Your task to perform on an android device: open wifi settings Image 0: 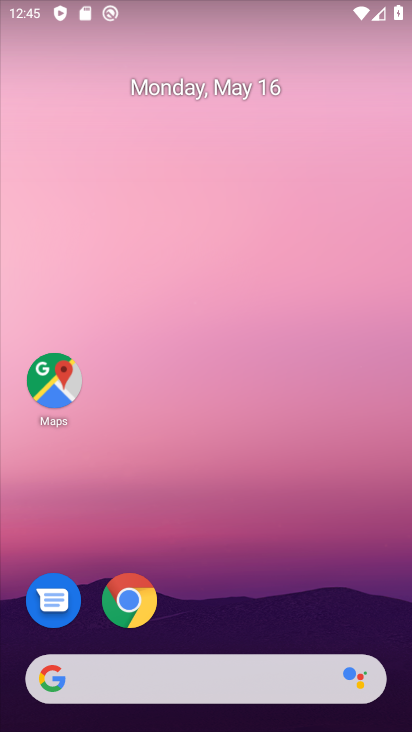
Step 0: drag from (352, 565) to (330, 74)
Your task to perform on an android device: open wifi settings Image 1: 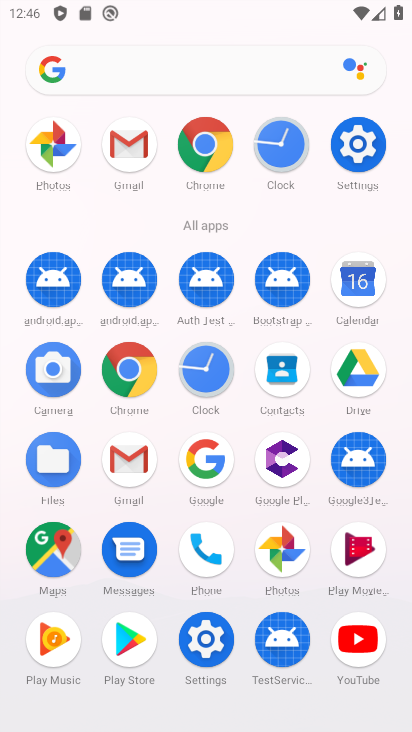
Step 1: click (356, 156)
Your task to perform on an android device: open wifi settings Image 2: 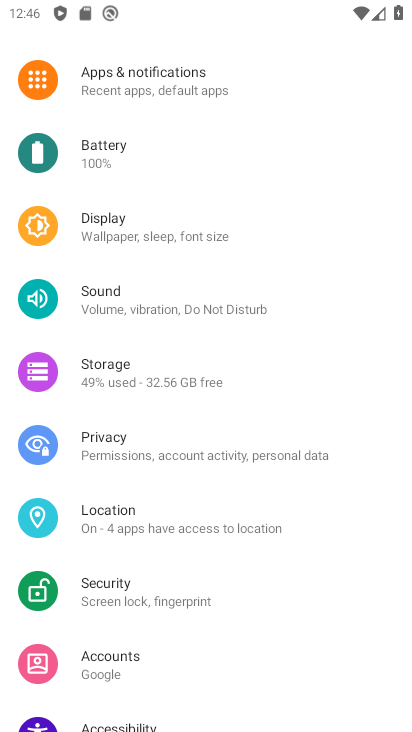
Step 2: drag from (330, 643) to (346, 444)
Your task to perform on an android device: open wifi settings Image 3: 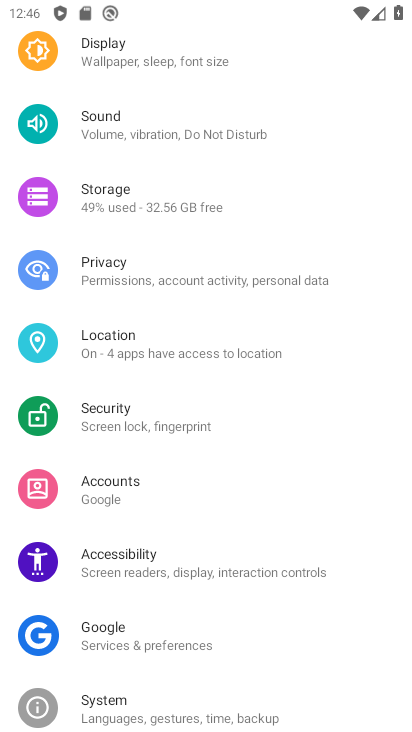
Step 3: drag from (325, 685) to (339, 473)
Your task to perform on an android device: open wifi settings Image 4: 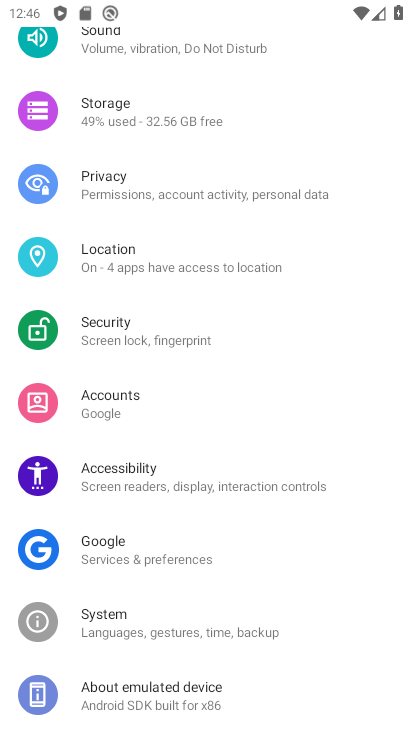
Step 4: drag from (342, 263) to (352, 372)
Your task to perform on an android device: open wifi settings Image 5: 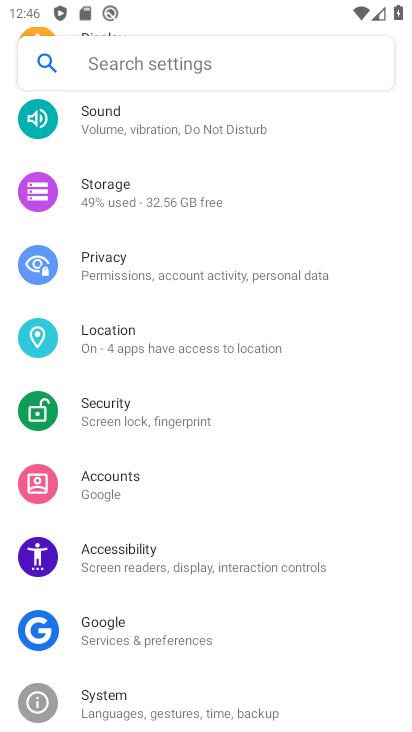
Step 5: drag from (367, 246) to (354, 376)
Your task to perform on an android device: open wifi settings Image 6: 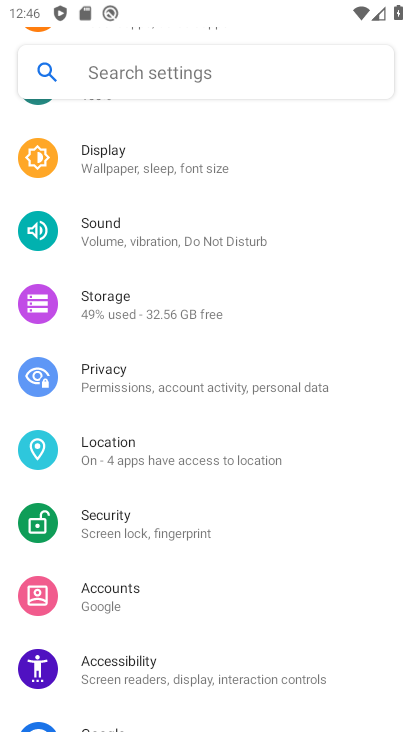
Step 6: drag from (343, 253) to (343, 412)
Your task to perform on an android device: open wifi settings Image 7: 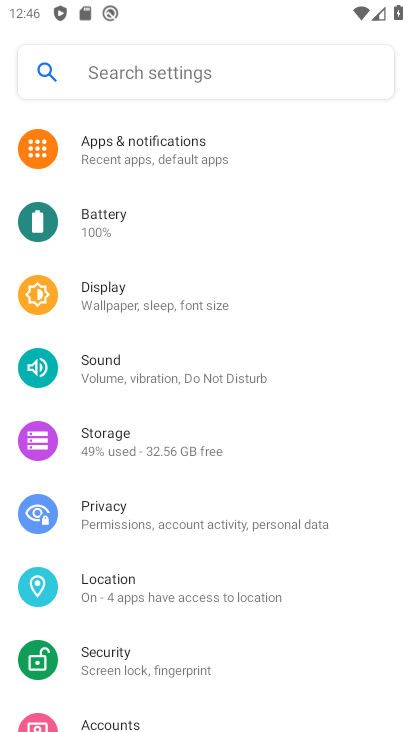
Step 7: drag from (342, 278) to (342, 419)
Your task to perform on an android device: open wifi settings Image 8: 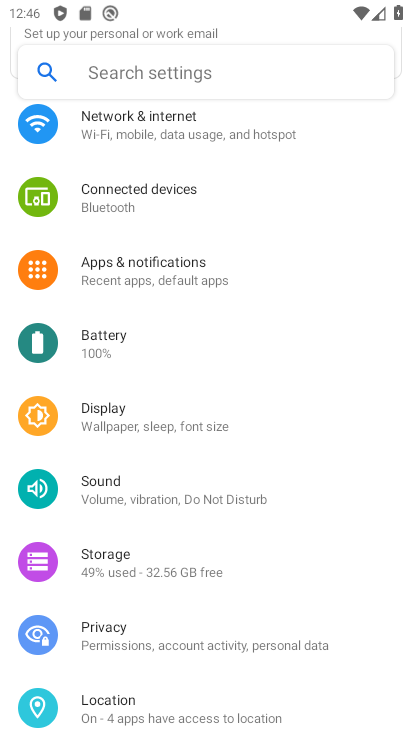
Step 8: drag from (329, 270) to (331, 407)
Your task to perform on an android device: open wifi settings Image 9: 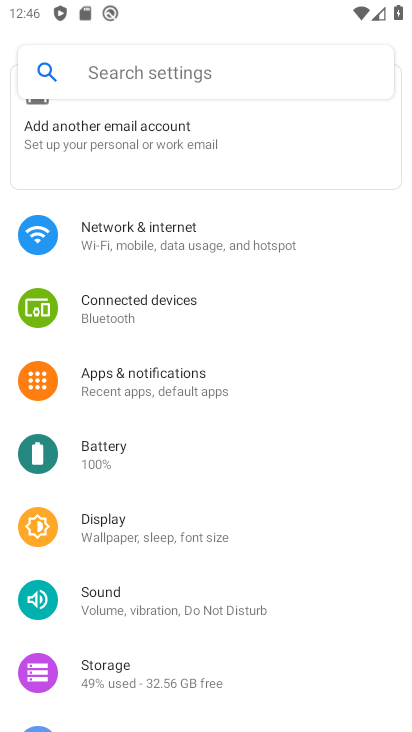
Step 9: click (233, 197)
Your task to perform on an android device: open wifi settings Image 10: 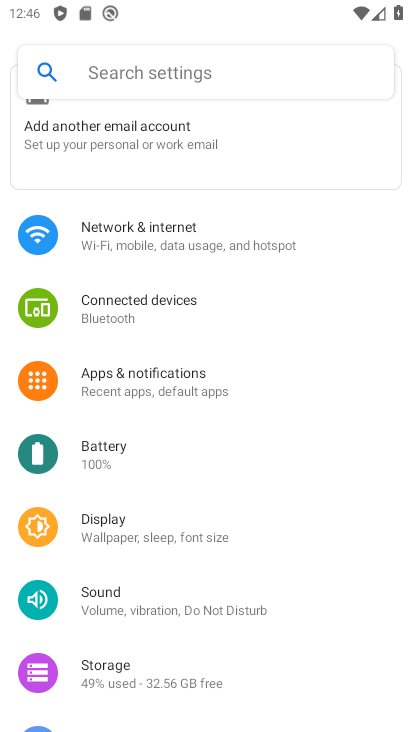
Step 10: click (232, 229)
Your task to perform on an android device: open wifi settings Image 11: 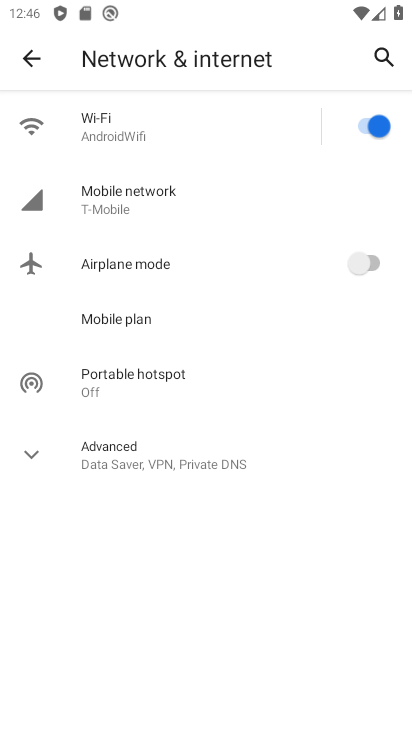
Step 11: click (137, 136)
Your task to perform on an android device: open wifi settings Image 12: 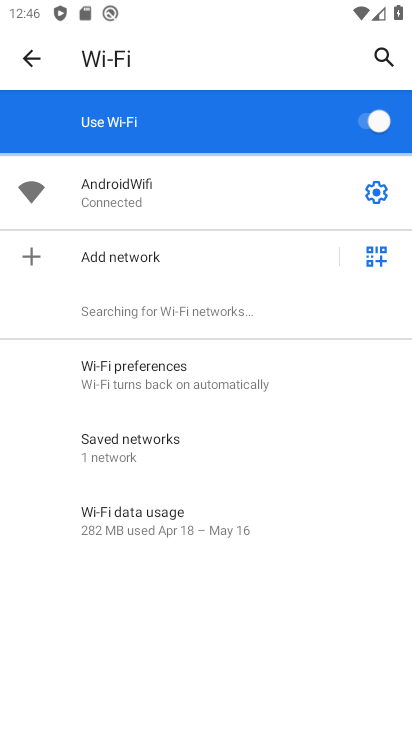
Step 12: task complete